Your task to perform on an android device: change timer sound Image 0: 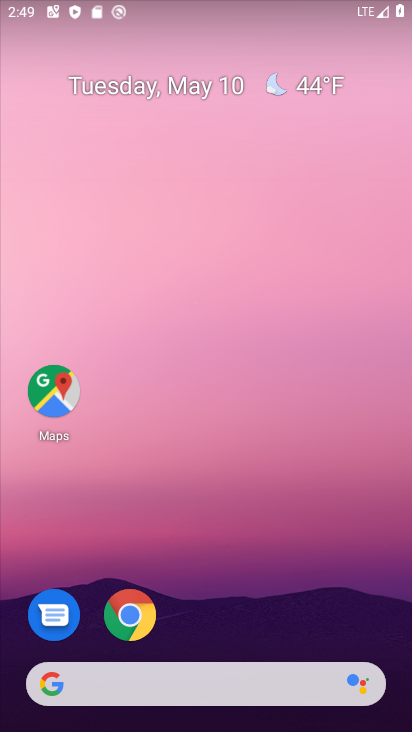
Step 0: drag from (305, 596) to (328, 4)
Your task to perform on an android device: change timer sound Image 1: 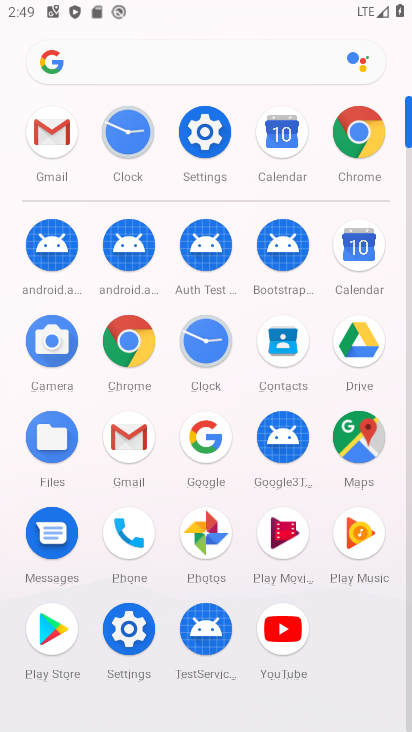
Step 1: click (196, 345)
Your task to perform on an android device: change timer sound Image 2: 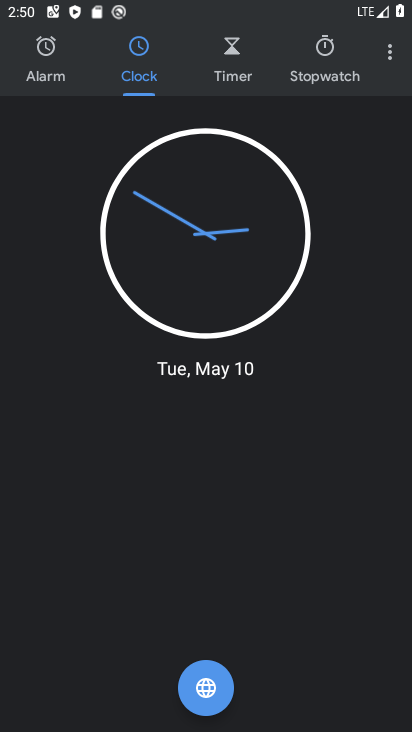
Step 2: click (389, 56)
Your task to perform on an android device: change timer sound Image 3: 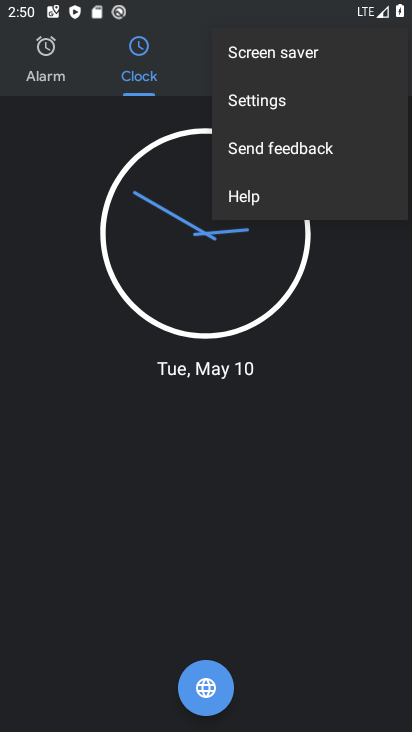
Step 3: click (251, 109)
Your task to perform on an android device: change timer sound Image 4: 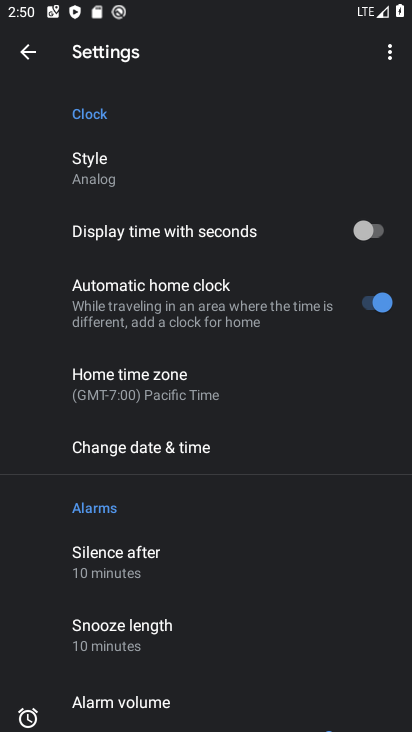
Step 4: drag from (240, 617) to (194, 127)
Your task to perform on an android device: change timer sound Image 5: 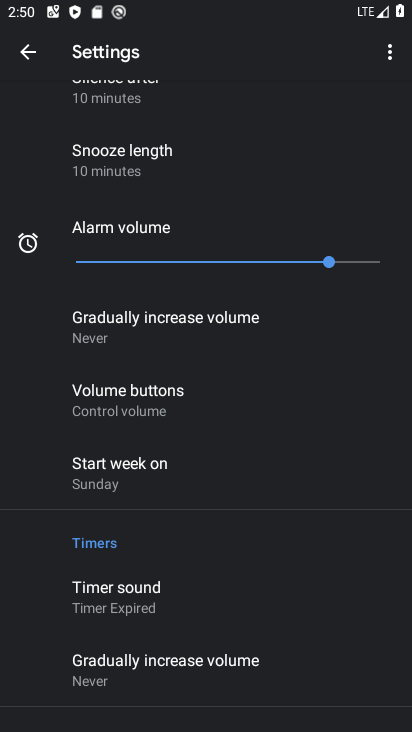
Step 5: click (161, 599)
Your task to perform on an android device: change timer sound Image 6: 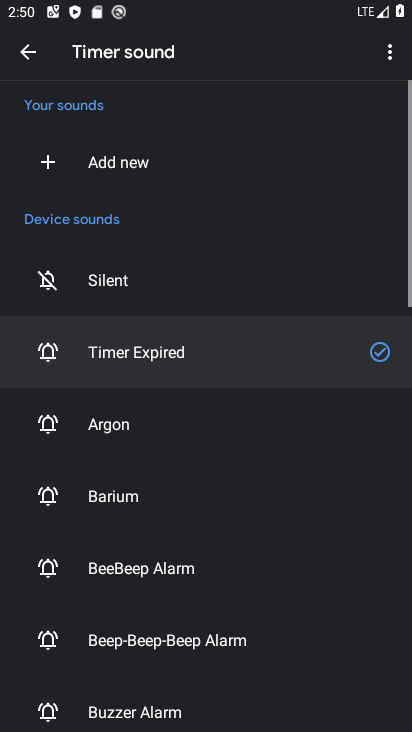
Step 6: click (159, 572)
Your task to perform on an android device: change timer sound Image 7: 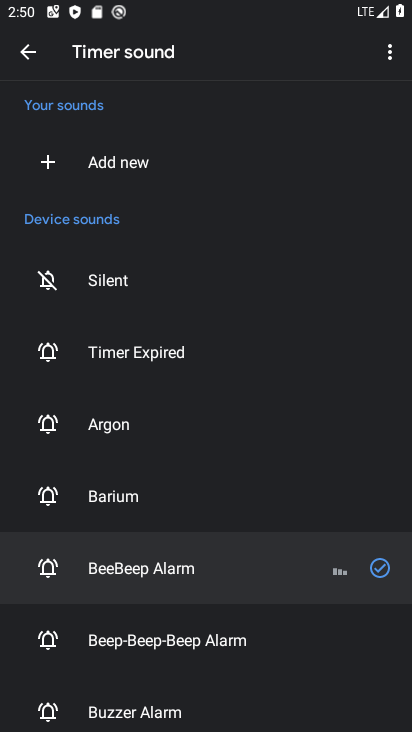
Step 7: task complete